Your task to perform on an android device: Go to Maps Image 0: 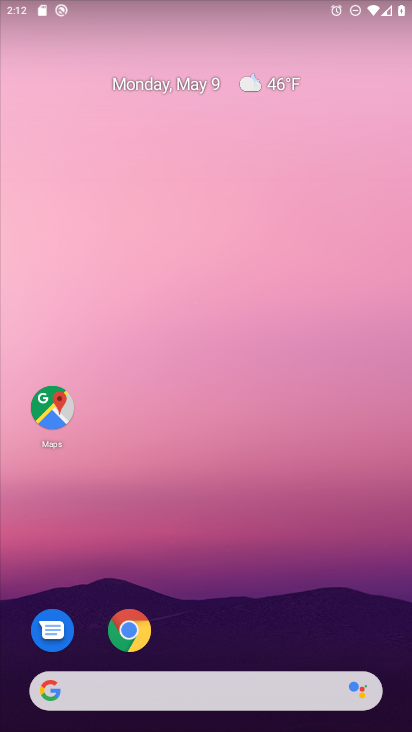
Step 0: drag from (249, 698) to (186, 286)
Your task to perform on an android device: Go to Maps Image 1: 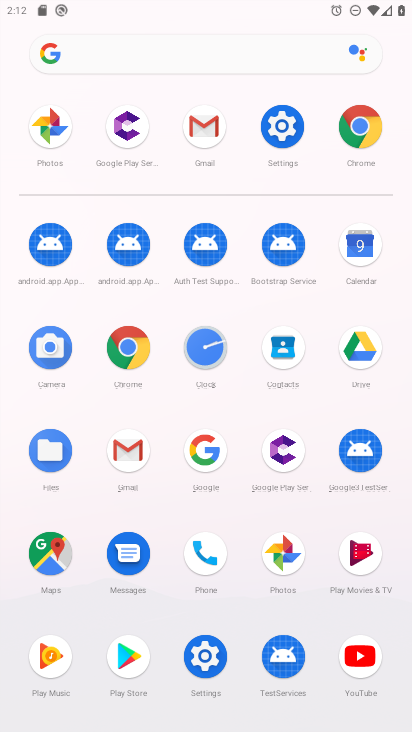
Step 1: click (53, 560)
Your task to perform on an android device: Go to Maps Image 2: 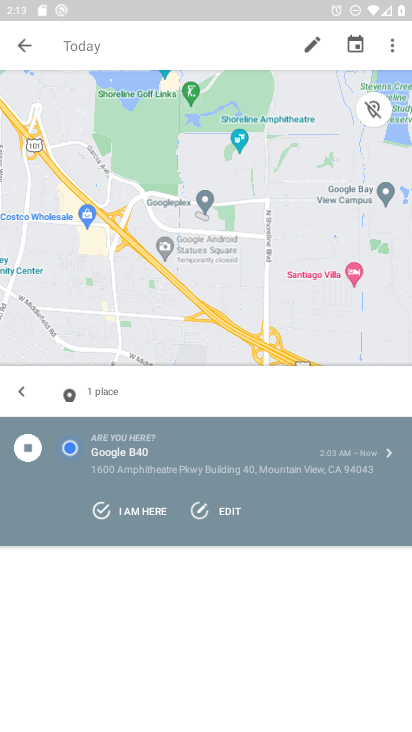
Step 2: click (27, 47)
Your task to perform on an android device: Go to Maps Image 3: 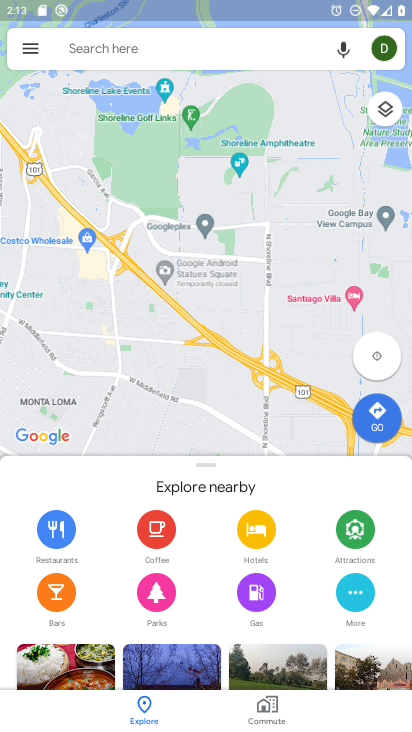
Step 3: click (376, 355)
Your task to perform on an android device: Go to Maps Image 4: 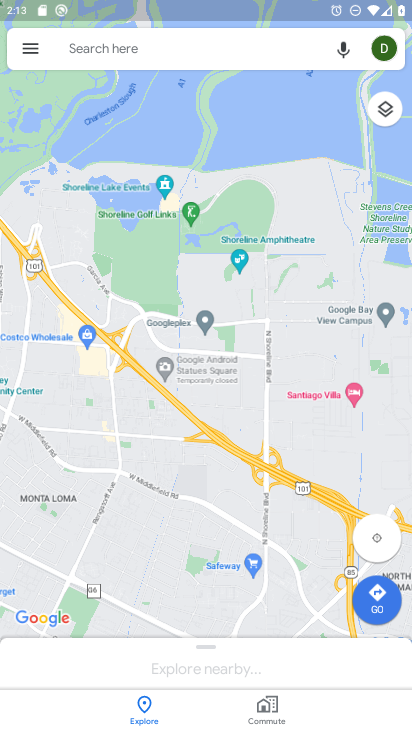
Step 4: task complete